Your task to perform on an android device: Open Google Image 0: 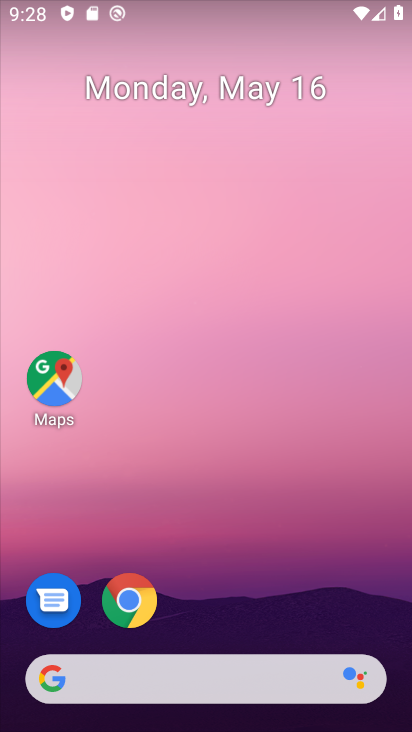
Step 0: drag from (274, 601) to (352, 23)
Your task to perform on an android device: Open Google Image 1: 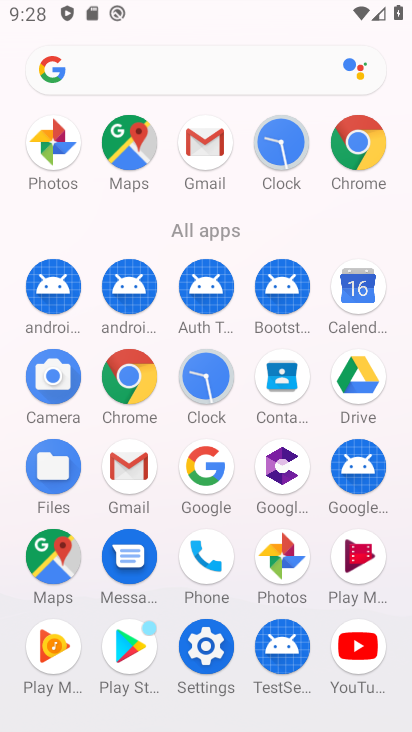
Step 1: click (196, 461)
Your task to perform on an android device: Open Google Image 2: 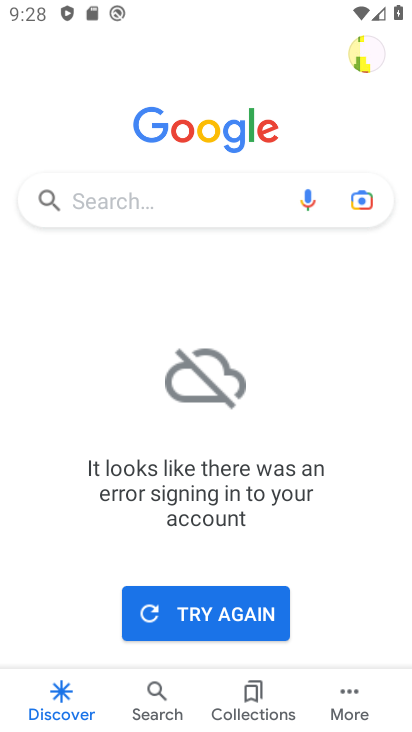
Step 2: task complete